Your task to perform on an android device: set an alarm Image 0: 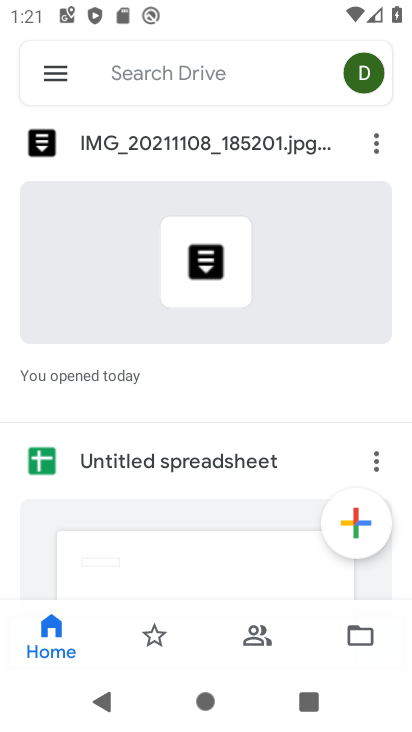
Step 0: press home button
Your task to perform on an android device: set an alarm Image 1: 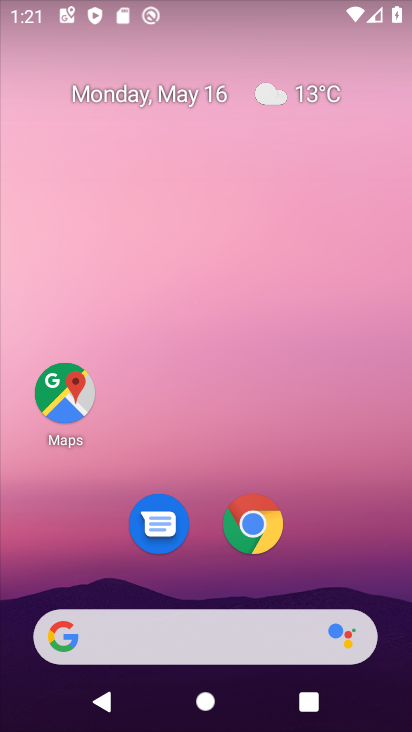
Step 1: drag from (231, 431) to (246, 40)
Your task to perform on an android device: set an alarm Image 2: 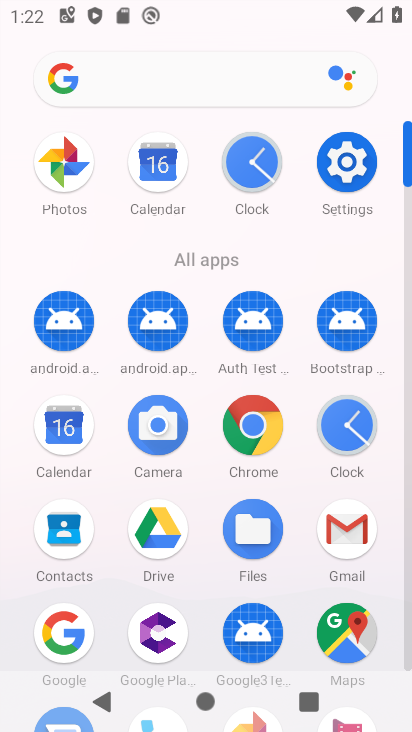
Step 2: click (266, 166)
Your task to perform on an android device: set an alarm Image 3: 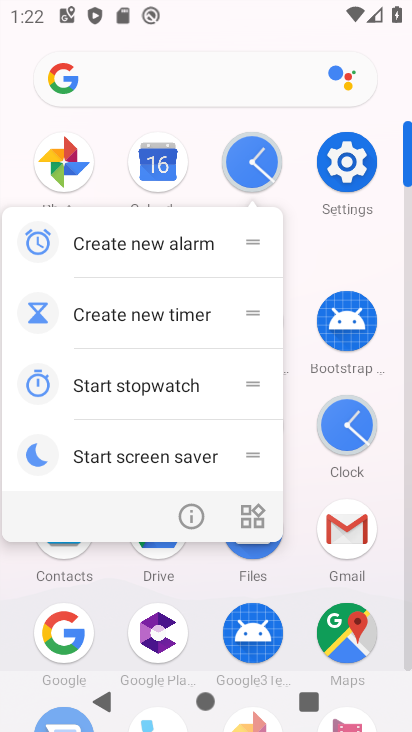
Step 3: click (255, 158)
Your task to perform on an android device: set an alarm Image 4: 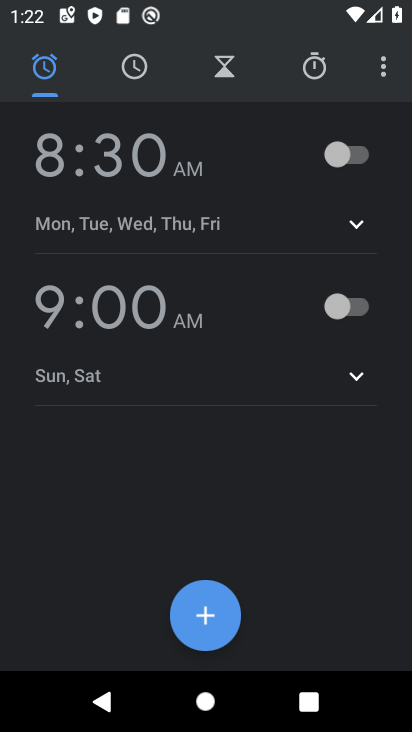
Step 4: click (200, 605)
Your task to perform on an android device: set an alarm Image 5: 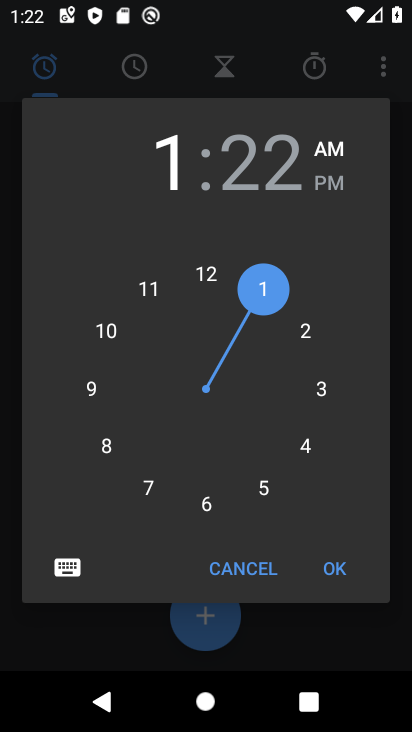
Step 5: click (284, 171)
Your task to perform on an android device: set an alarm Image 6: 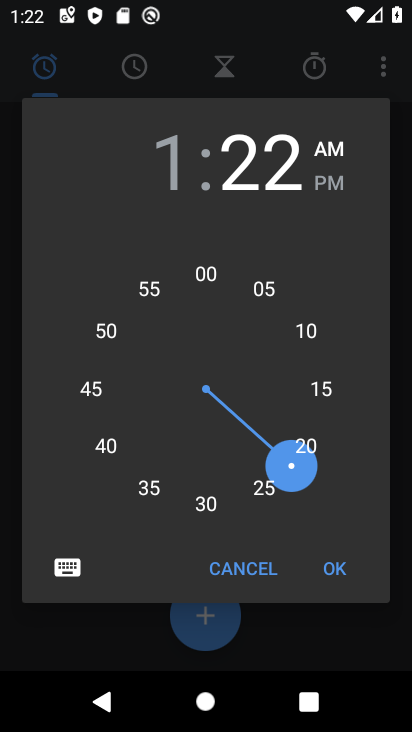
Step 6: click (212, 270)
Your task to perform on an android device: set an alarm Image 7: 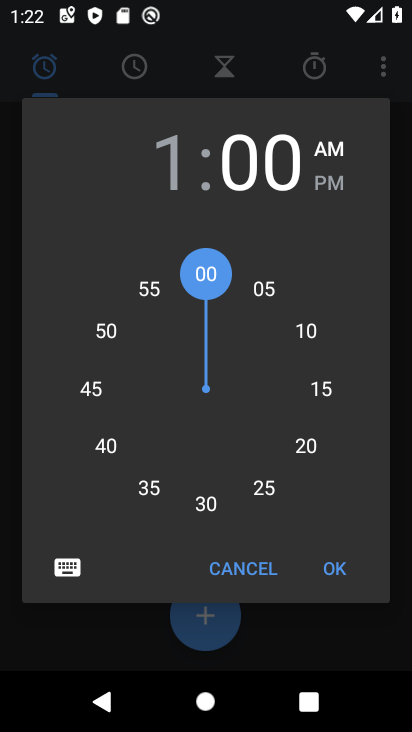
Step 7: click (322, 184)
Your task to perform on an android device: set an alarm Image 8: 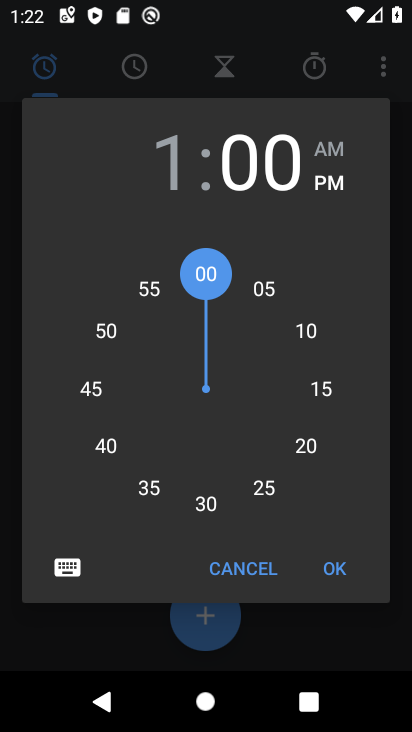
Step 8: task complete